Your task to perform on an android device: Search for "panasonic triple a" on costco, select the first entry, and add it to the cart. Image 0: 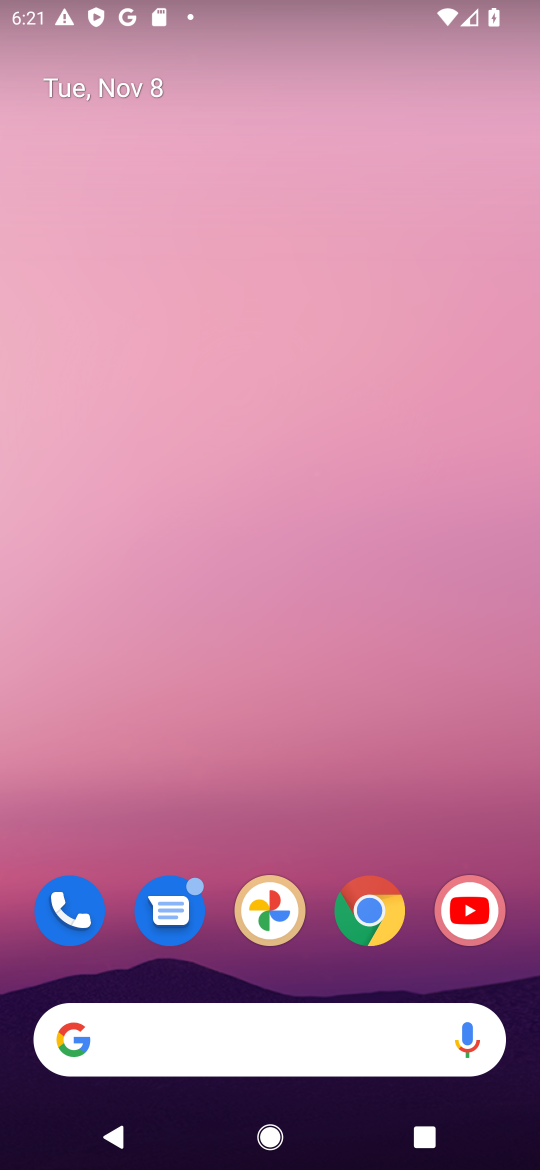
Step 0: click (375, 914)
Your task to perform on an android device: Search for "panasonic triple a" on costco, select the first entry, and add it to the cart. Image 1: 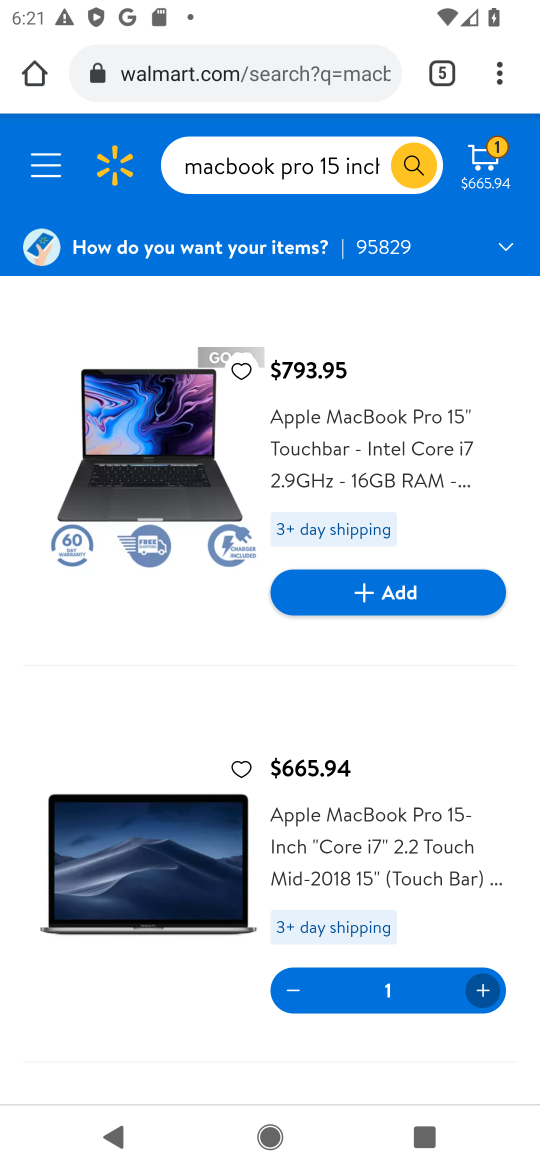
Step 1: click (444, 75)
Your task to perform on an android device: Search for "panasonic triple a" on costco, select the first entry, and add it to the cart. Image 2: 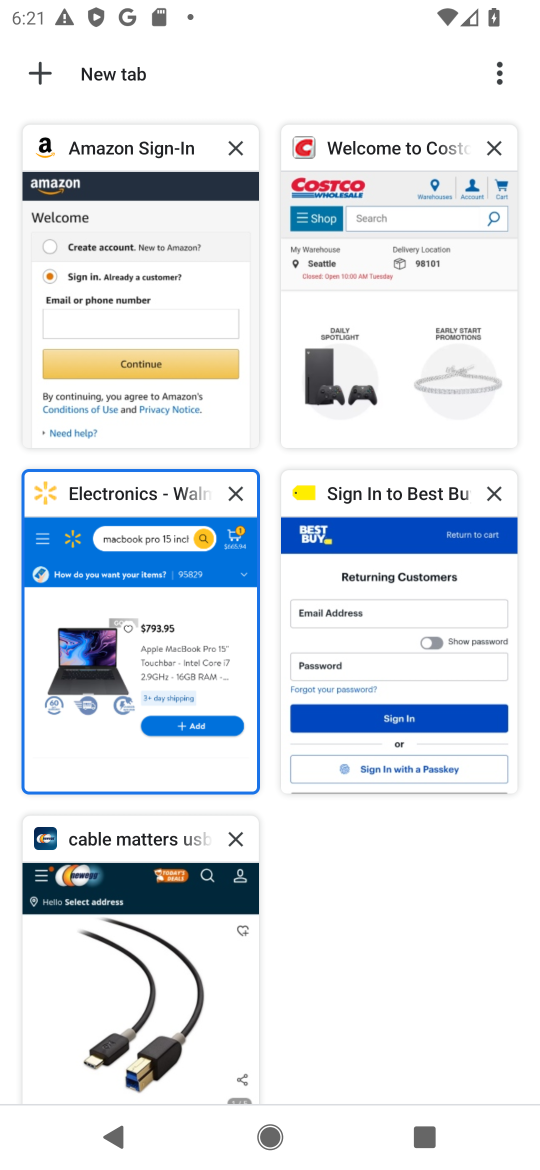
Step 2: click (378, 253)
Your task to perform on an android device: Search for "panasonic triple a" on costco, select the first entry, and add it to the cart. Image 3: 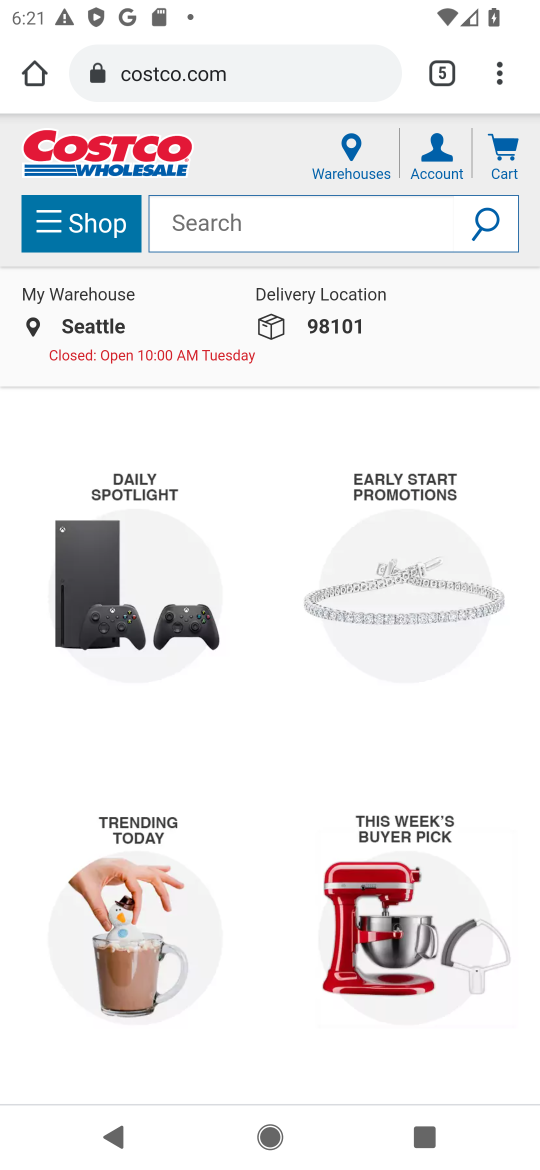
Step 3: click (257, 208)
Your task to perform on an android device: Search for "panasonic triple a" on costco, select the first entry, and add it to the cart. Image 4: 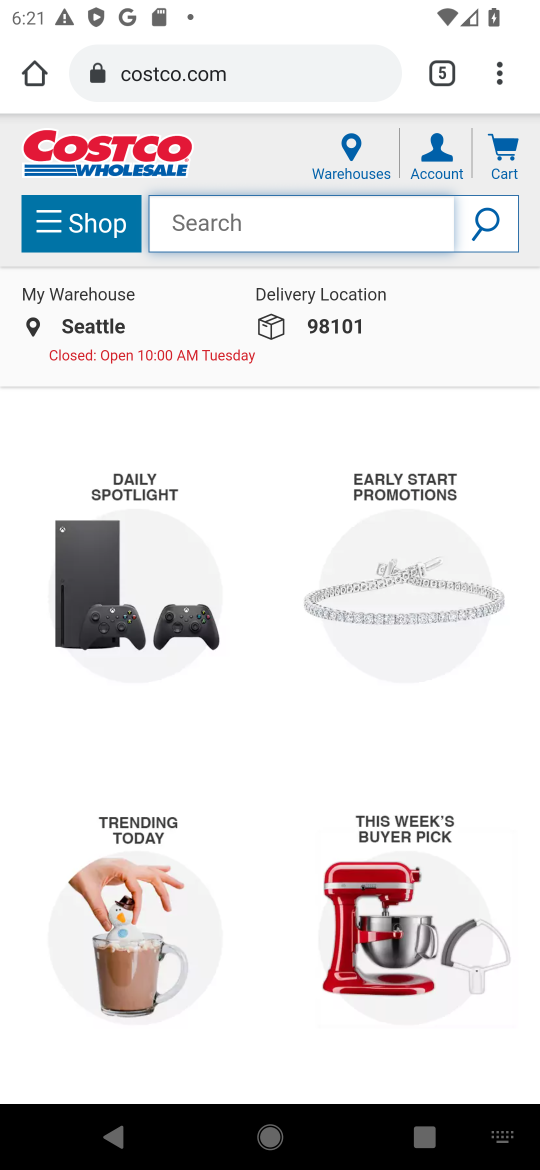
Step 4: type "panasonic triple a"
Your task to perform on an android device: Search for "panasonic triple a" on costco, select the first entry, and add it to the cart. Image 5: 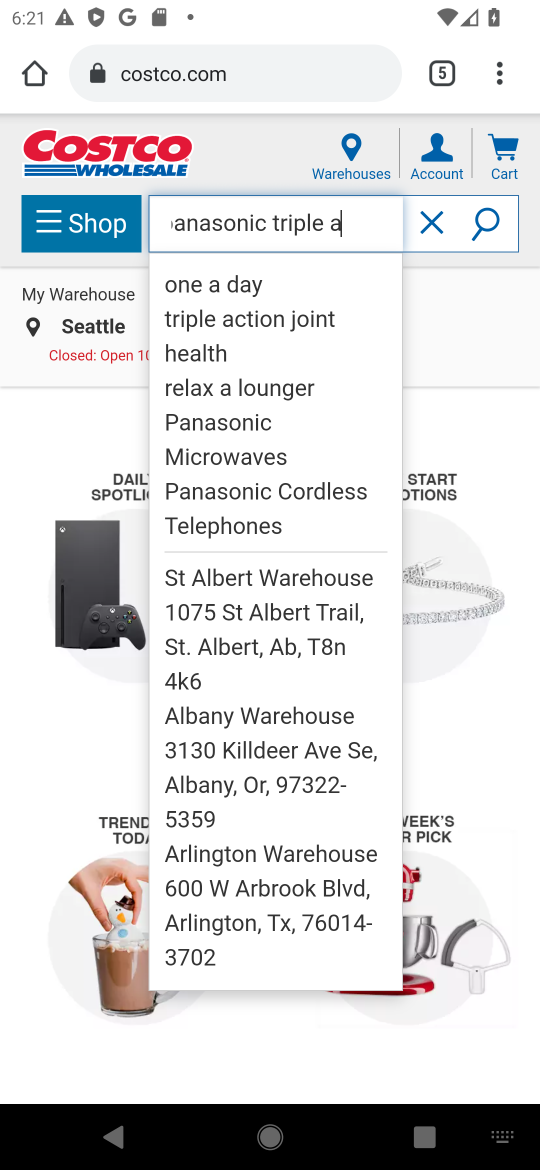
Step 5: click (228, 413)
Your task to perform on an android device: Search for "panasonic triple a" on costco, select the first entry, and add it to the cart. Image 6: 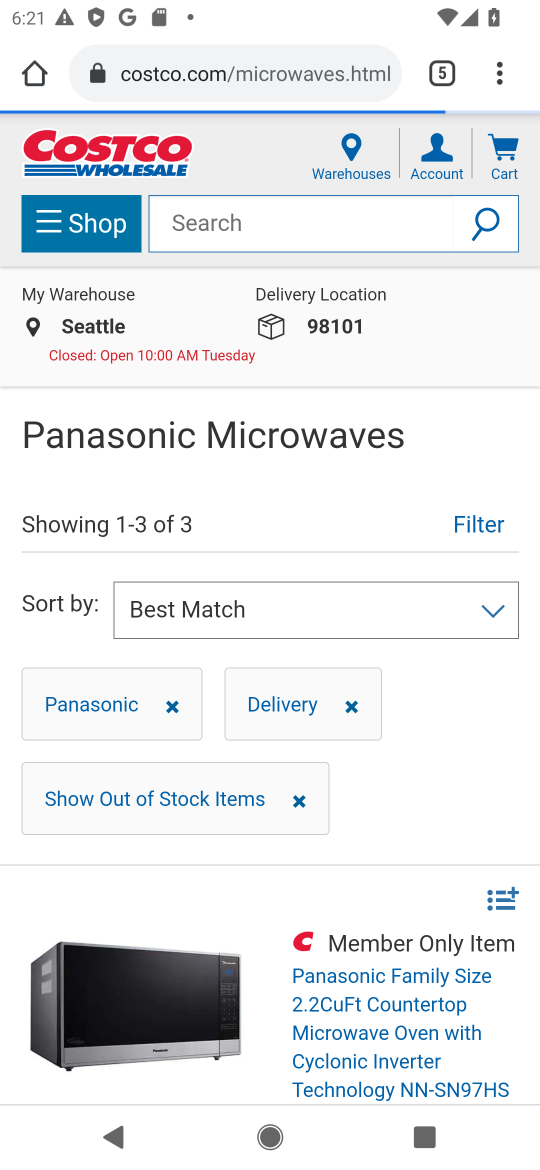
Step 6: drag from (359, 851) to (426, 443)
Your task to perform on an android device: Search for "panasonic triple a" on costco, select the first entry, and add it to the cart. Image 7: 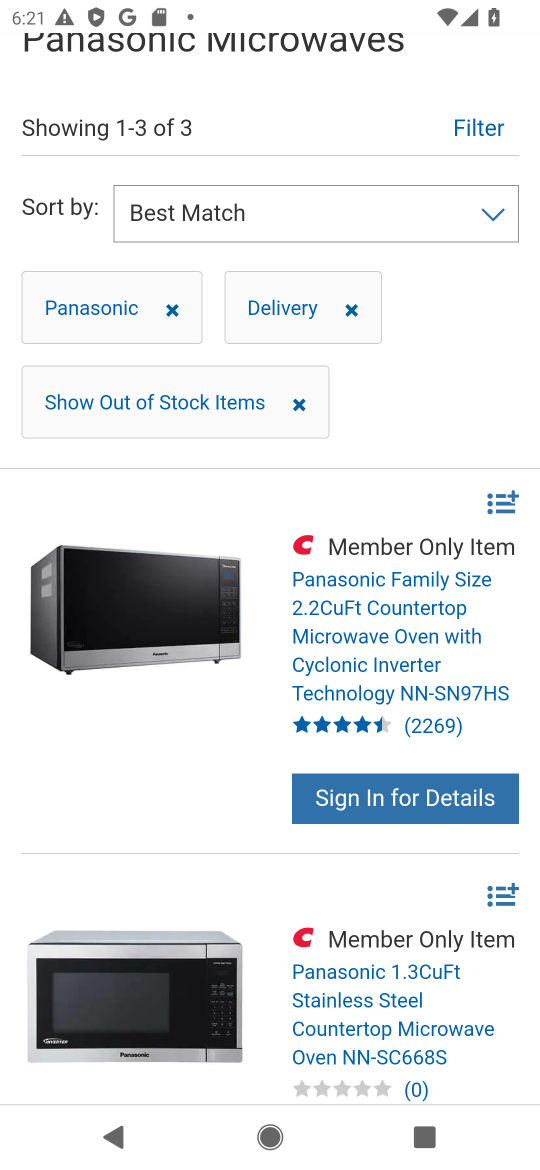
Step 7: drag from (286, 928) to (401, 303)
Your task to perform on an android device: Search for "panasonic triple a" on costco, select the first entry, and add it to the cart. Image 8: 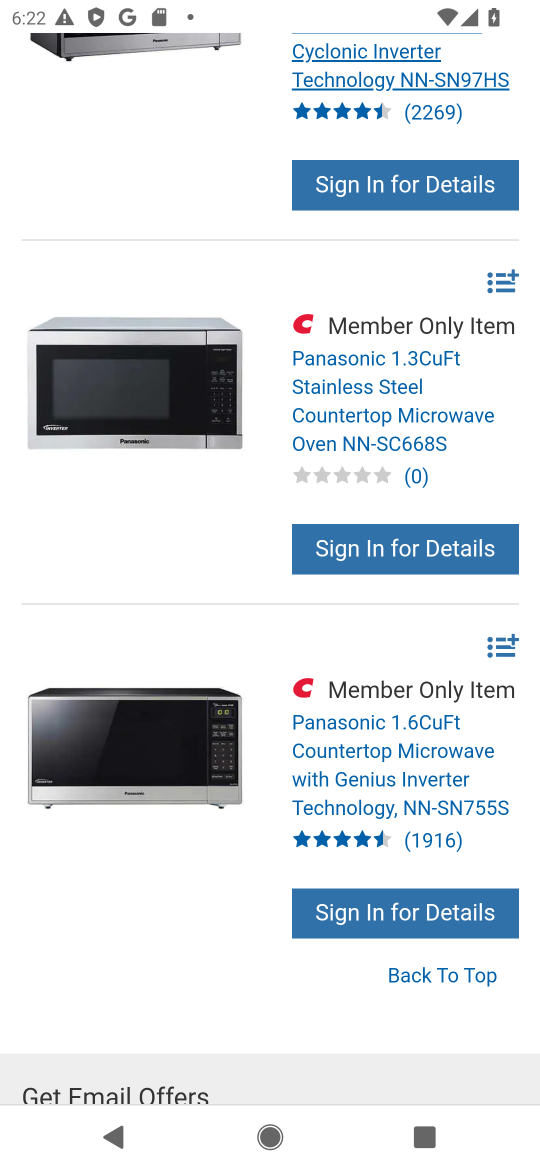
Step 8: drag from (244, 968) to (322, 402)
Your task to perform on an android device: Search for "panasonic triple a" on costco, select the first entry, and add it to the cart. Image 9: 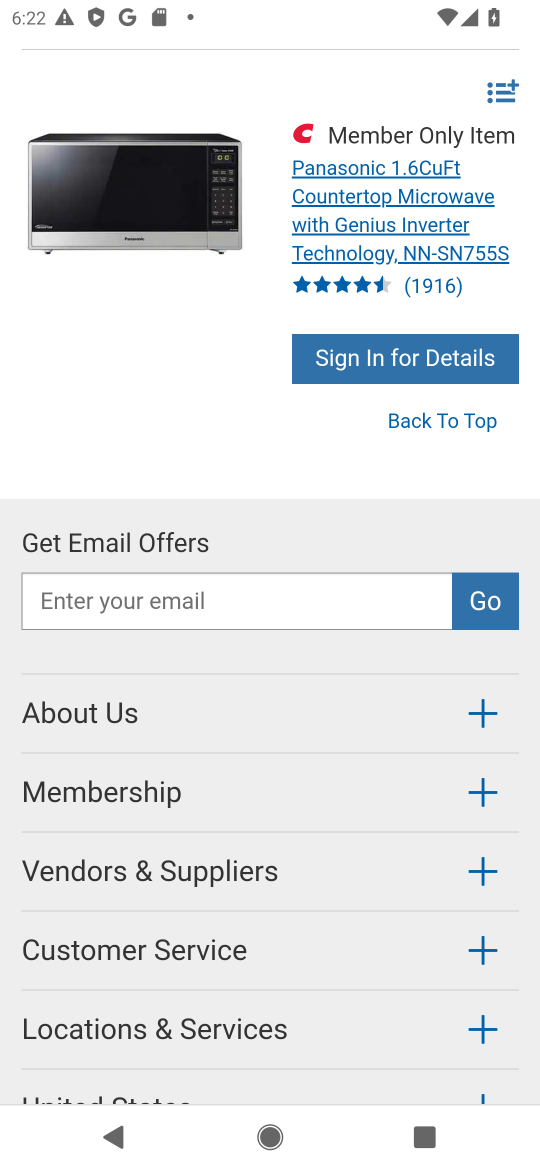
Step 9: click (375, 224)
Your task to perform on an android device: Search for "panasonic triple a" on costco, select the first entry, and add it to the cart. Image 10: 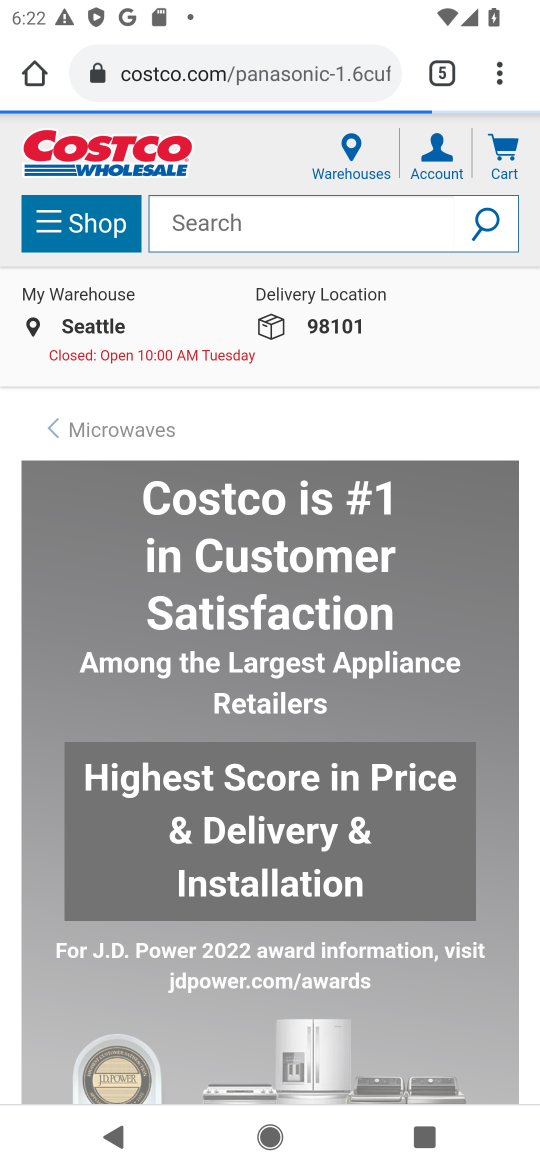
Step 10: drag from (328, 897) to (379, 218)
Your task to perform on an android device: Search for "panasonic triple a" on costco, select the first entry, and add it to the cart. Image 11: 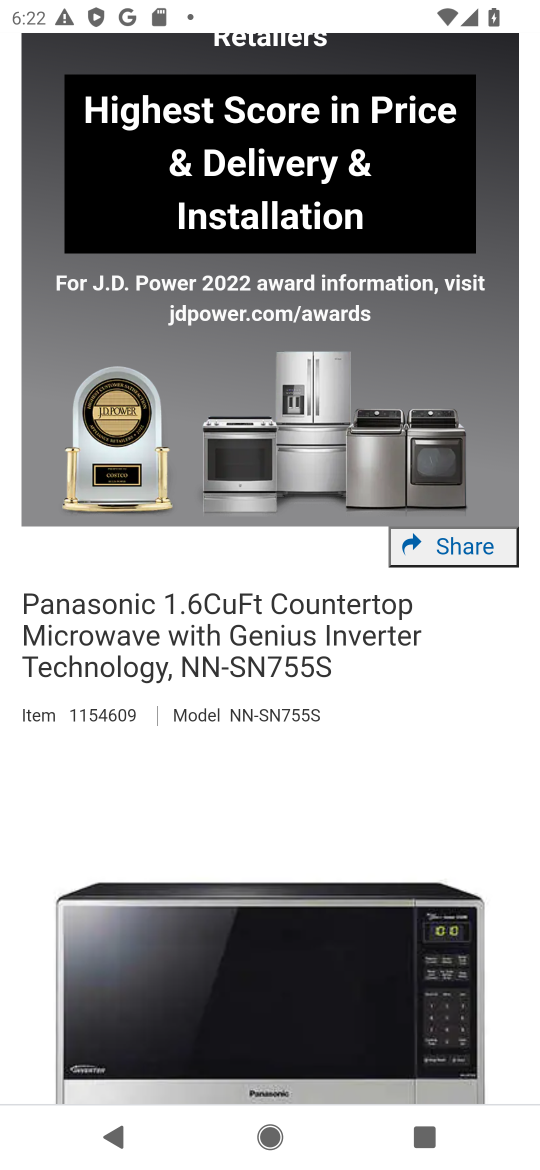
Step 11: drag from (305, 901) to (381, 47)
Your task to perform on an android device: Search for "panasonic triple a" on costco, select the first entry, and add it to the cart. Image 12: 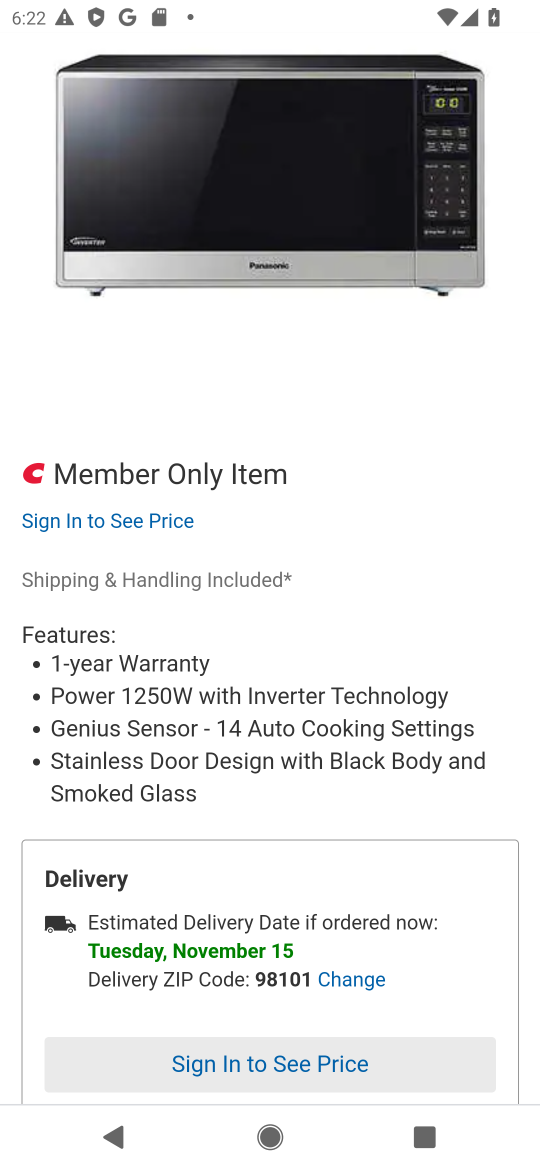
Step 12: drag from (292, 708) to (315, 47)
Your task to perform on an android device: Search for "panasonic triple a" on costco, select the first entry, and add it to the cart. Image 13: 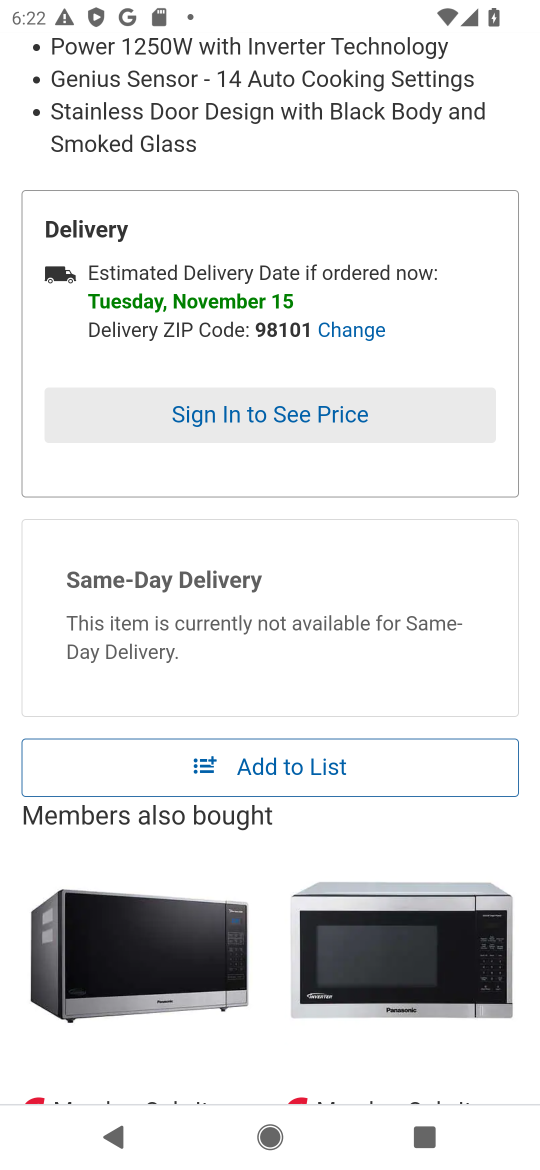
Step 13: click (280, 766)
Your task to perform on an android device: Search for "panasonic triple a" on costco, select the first entry, and add it to the cart. Image 14: 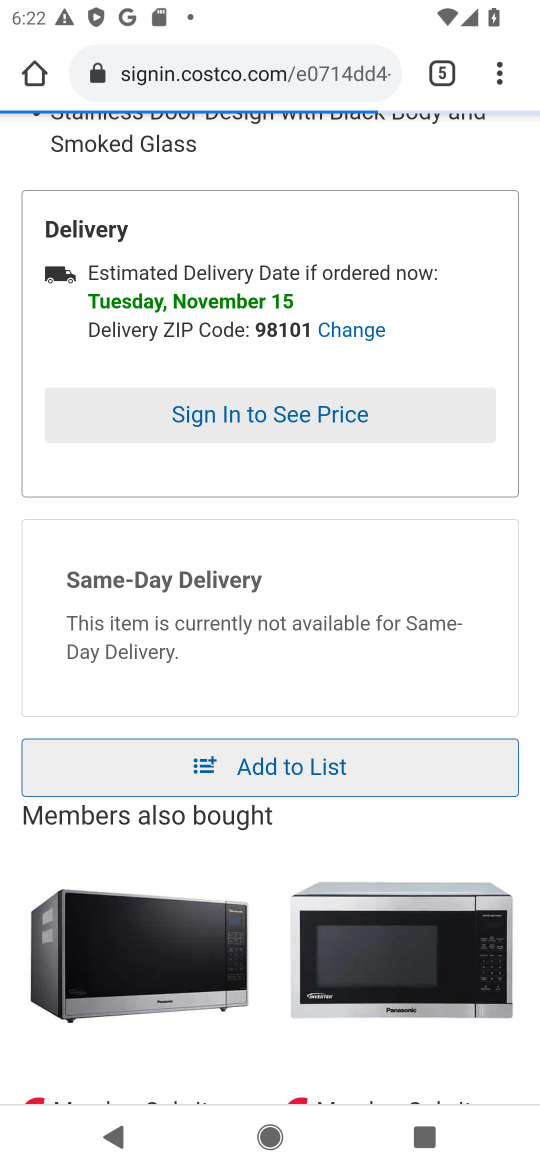
Step 14: task complete